Your task to perform on an android device: clear history in the chrome app Image 0: 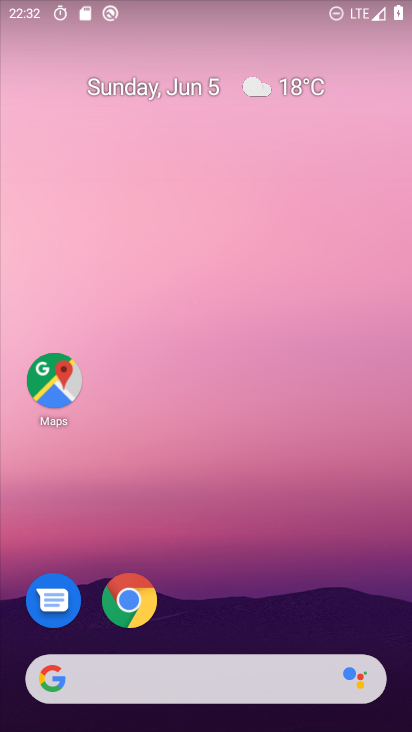
Step 0: click (132, 601)
Your task to perform on an android device: clear history in the chrome app Image 1: 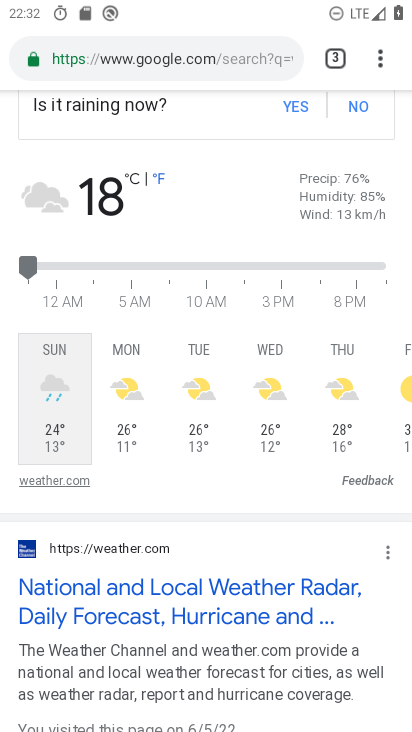
Step 1: drag from (396, 48) to (191, 332)
Your task to perform on an android device: clear history in the chrome app Image 2: 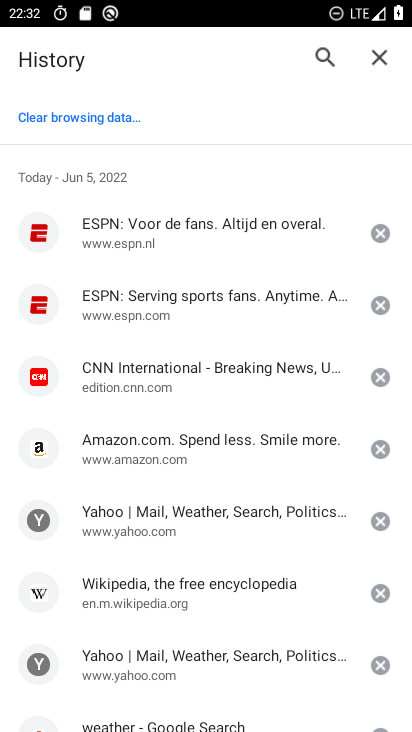
Step 2: click (54, 122)
Your task to perform on an android device: clear history in the chrome app Image 3: 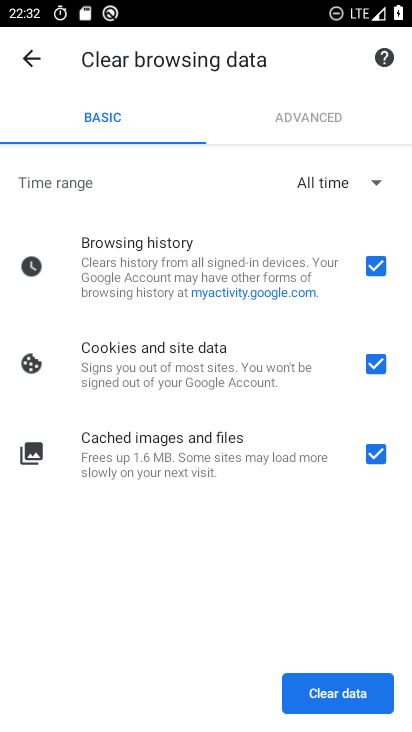
Step 3: click (320, 700)
Your task to perform on an android device: clear history in the chrome app Image 4: 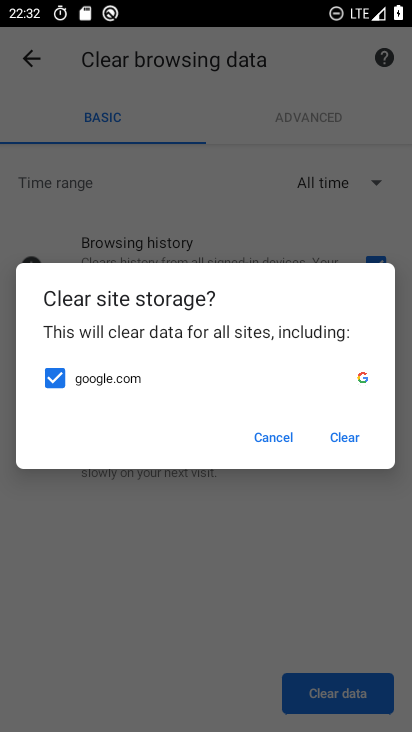
Step 4: click (342, 448)
Your task to perform on an android device: clear history in the chrome app Image 5: 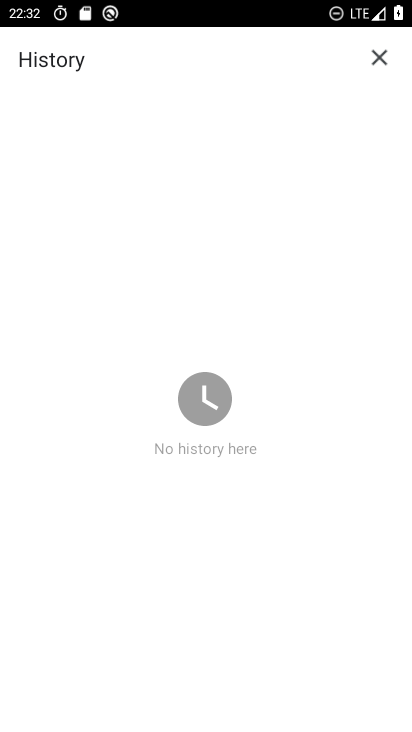
Step 5: task complete